Your task to perform on an android device: Open Reddit.com Image 0: 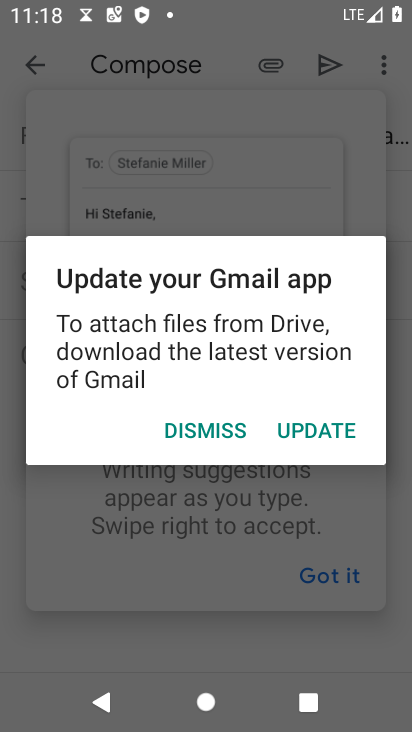
Step 0: click (249, 533)
Your task to perform on an android device: Open Reddit.com Image 1: 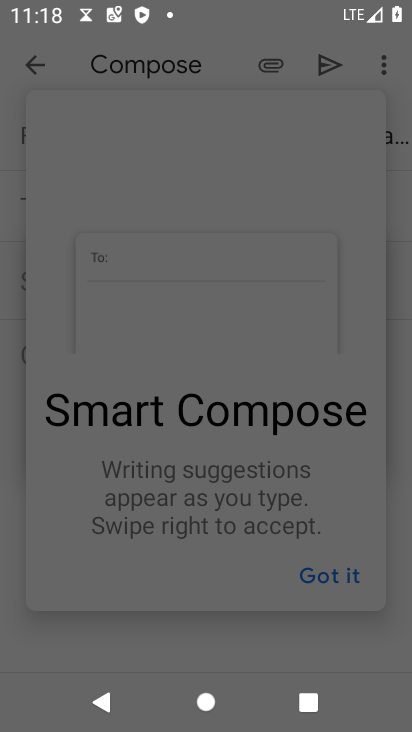
Step 1: press home button
Your task to perform on an android device: Open Reddit.com Image 2: 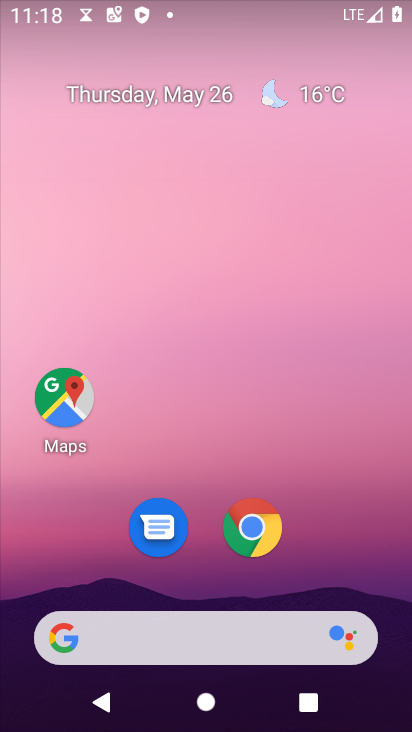
Step 2: click (257, 520)
Your task to perform on an android device: Open Reddit.com Image 3: 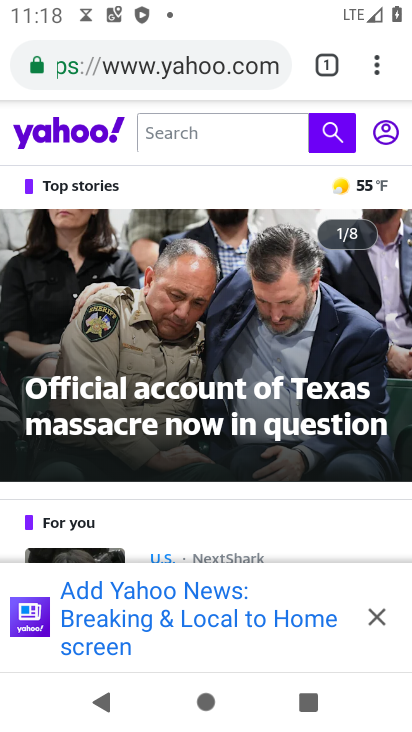
Step 3: click (168, 80)
Your task to perform on an android device: Open Reddit.com Image 4: 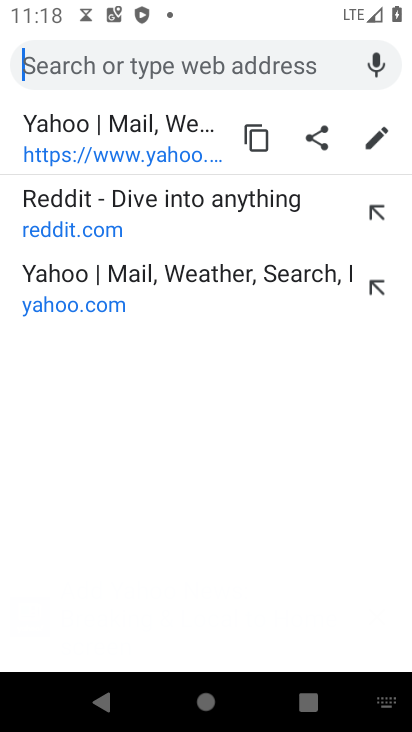
Step 4: type "Reddit.com"
Your task to perform on an android device: Open Reddit.com Image 5: 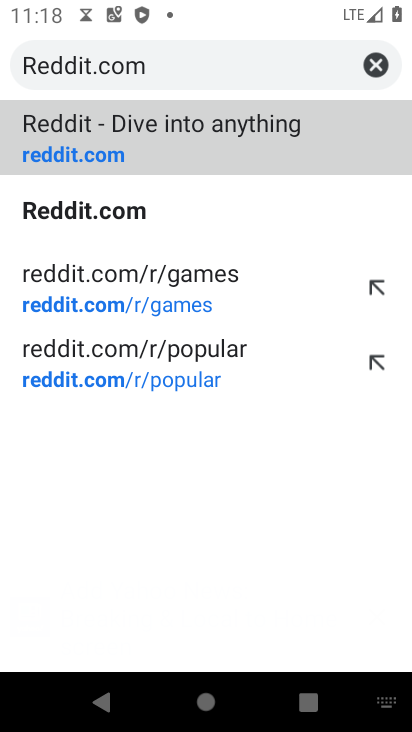
Step 5: click (83, 132)
Your task to perform on an android device: Open Reddit.com Image 6: 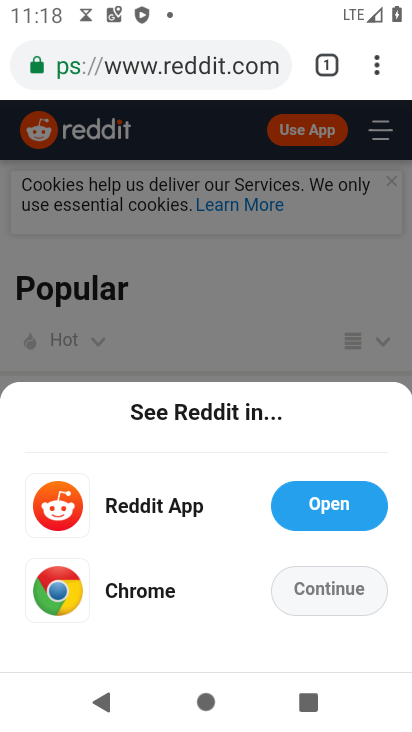
Step 6: task complete